Your task to perform on an android device: Open accessibility settings Image 0: 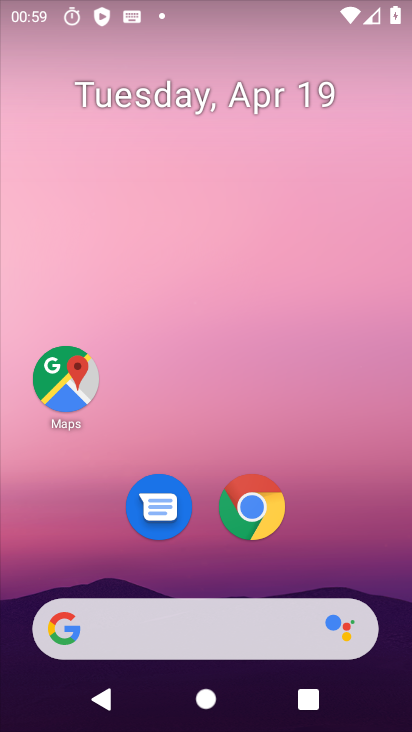
Step 0: drag from (204, 562) to (251, 34)
Your task to perform on an android device: Open accessibility settings Image 1: 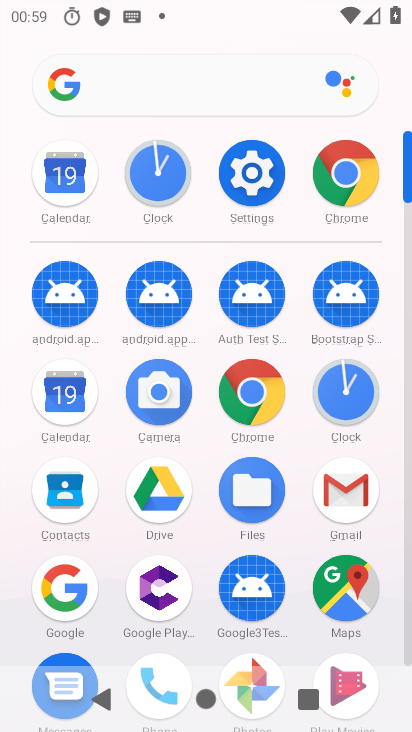
Step 1: click (249, 170)
Your task to perform on an android device: Open accessibility settings Image 2: 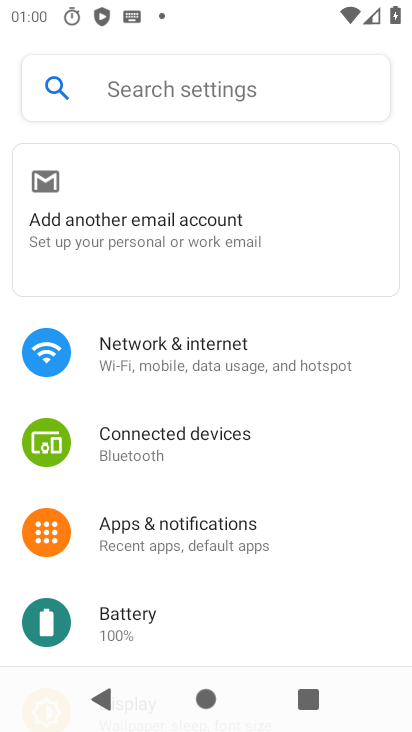
Step 2: drag from (177, 613) to (252, 113)
Your task to perform on an android device: Open accessibility settings Image 3: 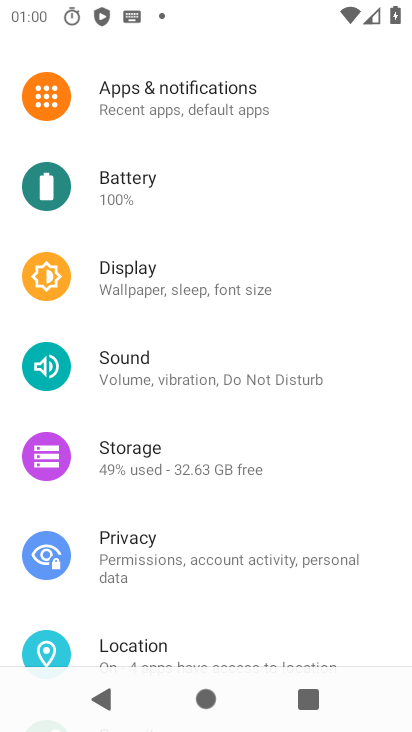
Step 3: drag from (167, 606) to (242, 40)
Your task to perform on an android device: Open accessibility settings Image 4: 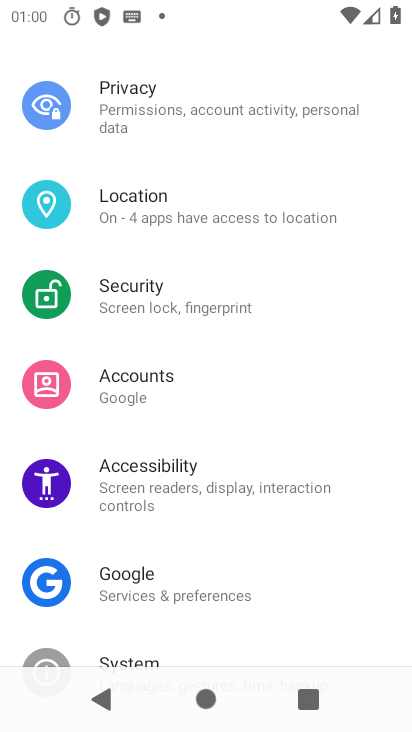
Step 4: click (220, 470)
Your task to perform on an android device: Open accessibility settings Image 5: 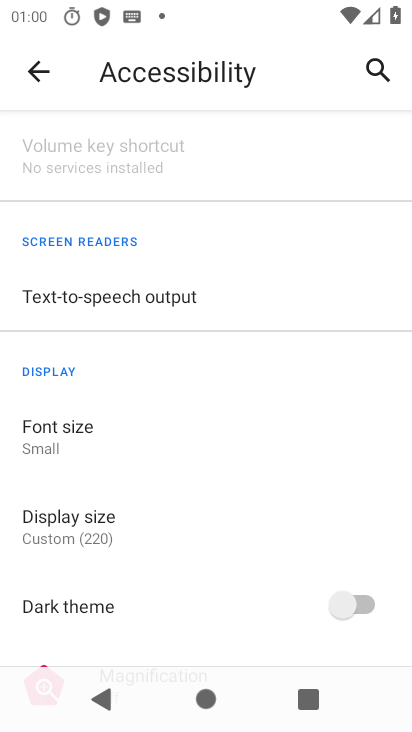
Step 5: task complete